Your task to perform on an android device: choose inbox layout in the gmail app Image 0: 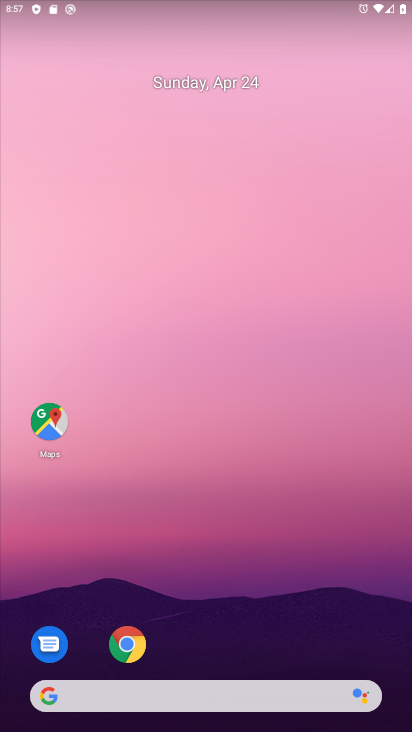
Step 0: drag from (207, 678) to (122, 21)
Your task to perform on an android device: choose inbox layout in the gmail app Image 1: 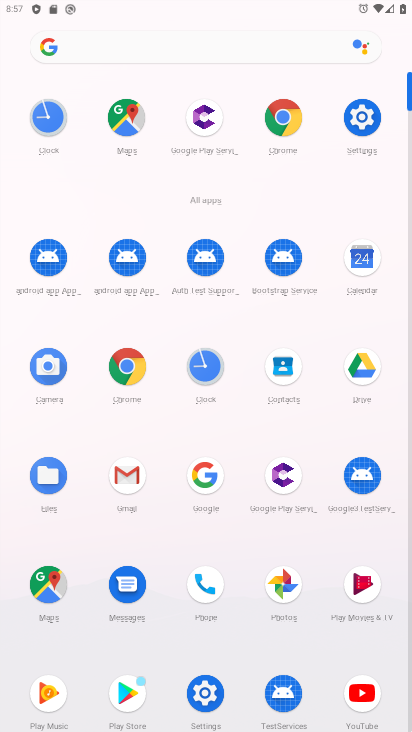
Step 1: click (111, 469)
Your task to perform on an android device: choose inbox layout in the gmail app Image 2: 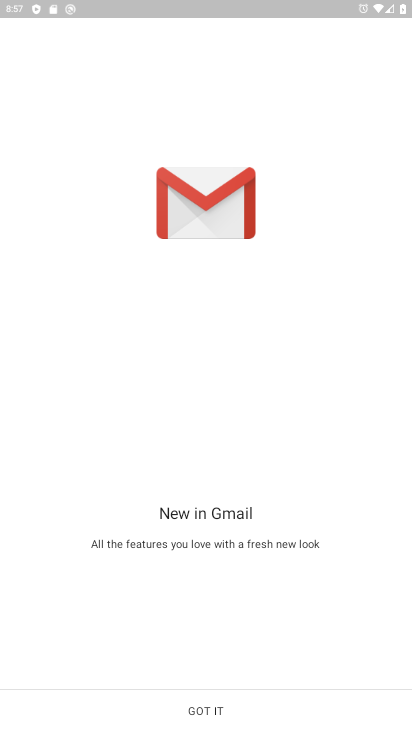
Step 2: click (194, 697)
Your task to perform on an android device: choose inbox layout in the gmail app Image 3: 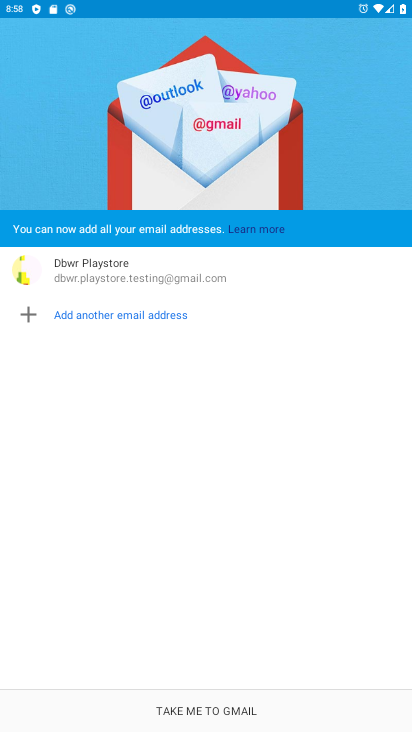
Step 3: click (230, 703)
Your task to perform on an android device: choose inbox layout in the gmail app Image 4: 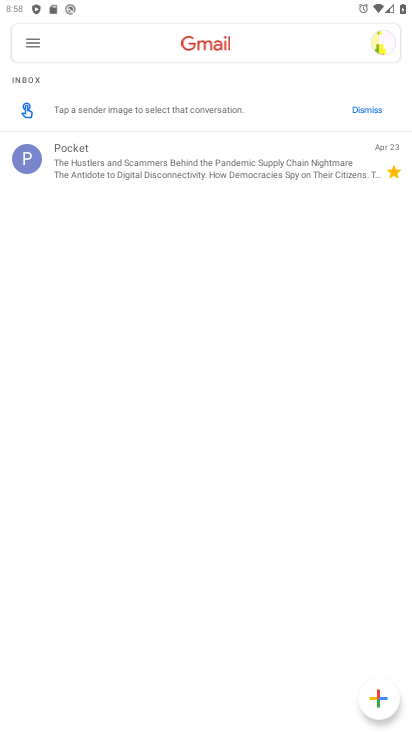
Step 4: drag from (29, 41) to (30, 339)
Your task to perform on an android device: choose inbox layout in the gmail app Image 5: 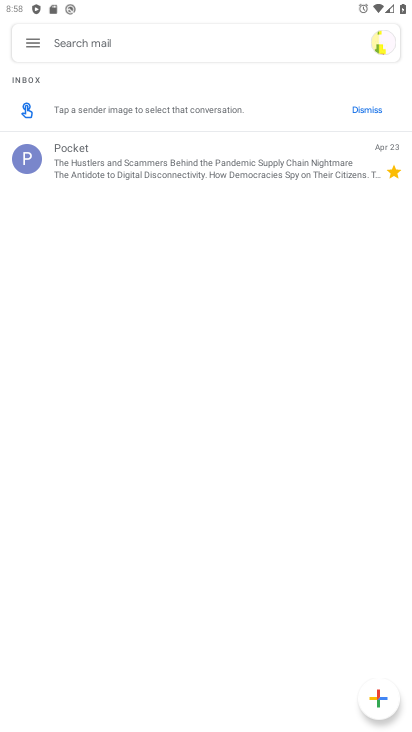
Step 5: click (36, 48)
Your task to perform on an android device: choose inbox layout in the gmail app Image 6: 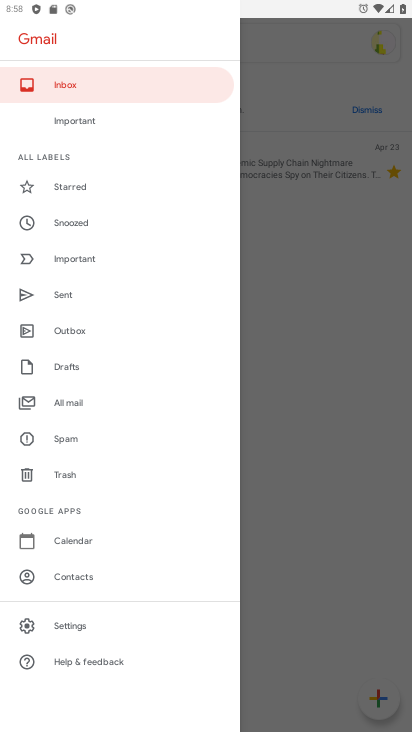
Step 6: click (57, 618)
Your task to perform on an android device: choose inbox layout in the gmail app Image 7: 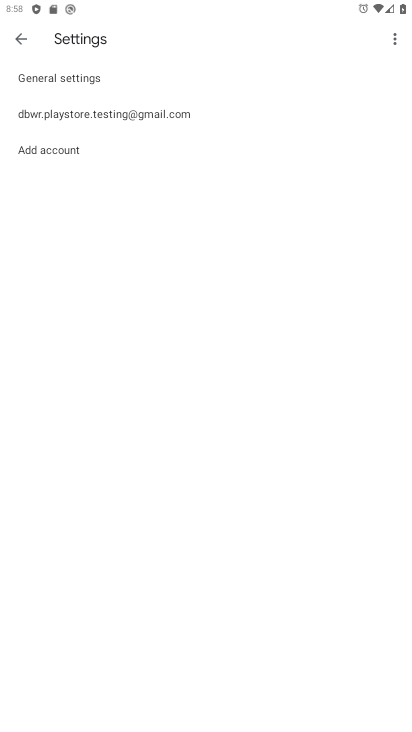
Step 7: click (43, 105)
Your task to perform on an android device: choose inbox layout in the gmail app Image 8: 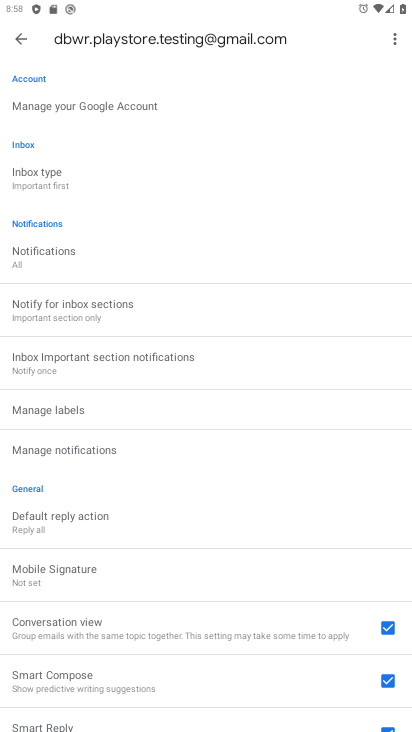
Step 8: click (37, 177)
Your task to perform on an android device: choose inbox layout in the gmail app Image 9: 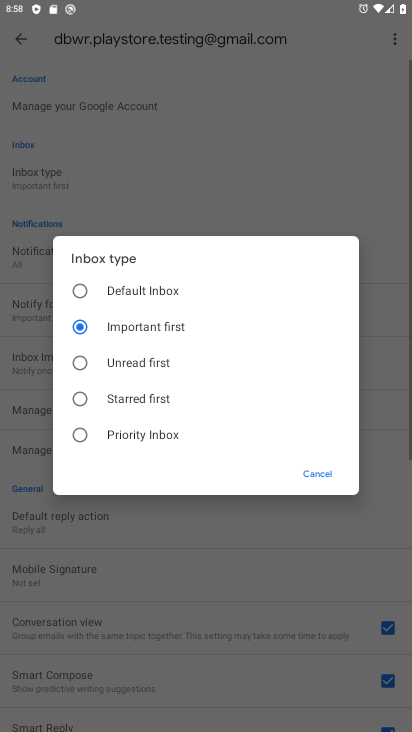
Step 9: click (91, 302)
Your task to perform on an android device: choose inbox layout in the gmail app Image 10: 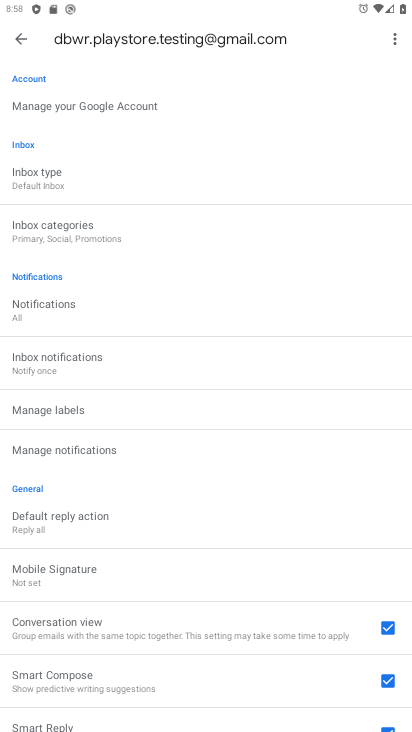
Step 10: click (28, 184)
Your task to perform on an android device: choose inbox layout in the gmail app Image 11: 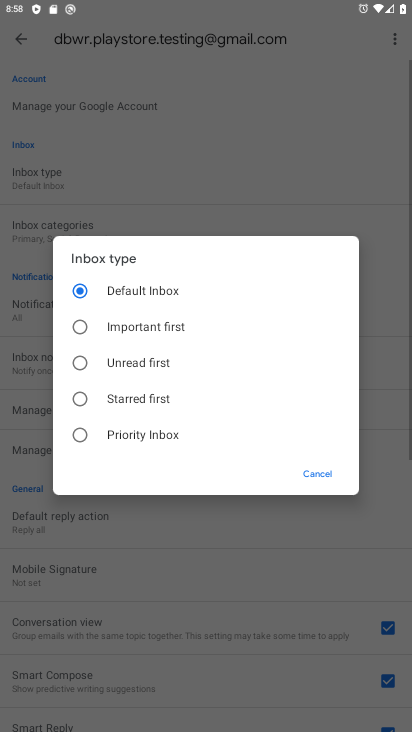
Step 11: click (100, 435)
Your task to perform on an android device: choose inbox layout in the gmail app Image 12: 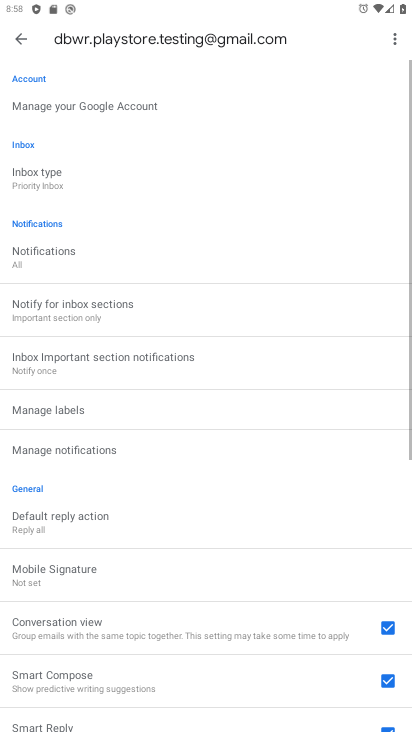
Step 12: click (12, 33)
Your task to perform on an android device: choose inbox layout in the gmail app Image 13: 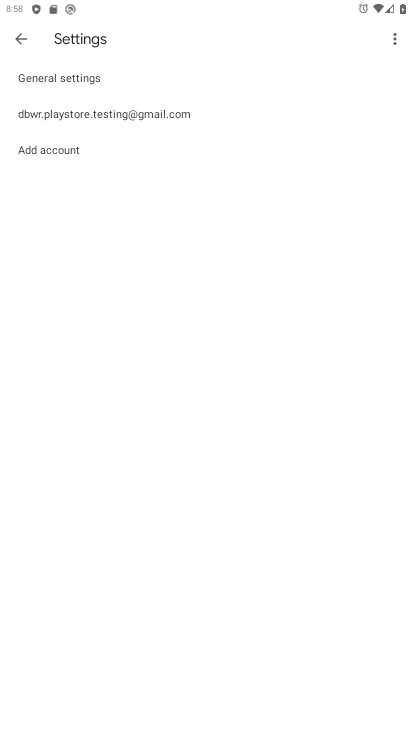
Step 13: click (12, 33)
Your task to perform on an android device: choose inbox layout in the gmail app Image 14: 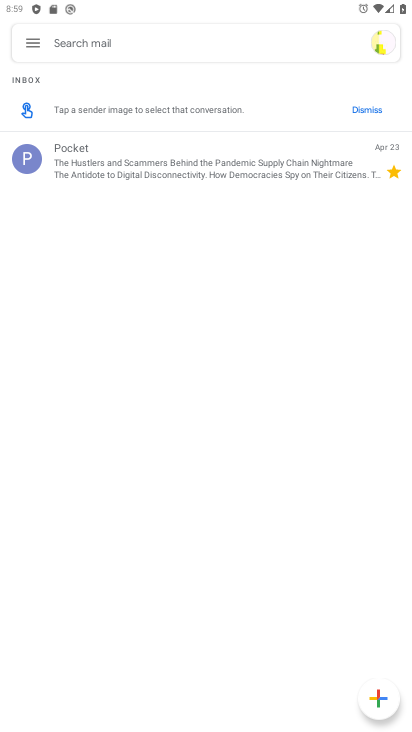
Step 14: task complete